Your task to perform on an android device: Open notification settings Image 0: 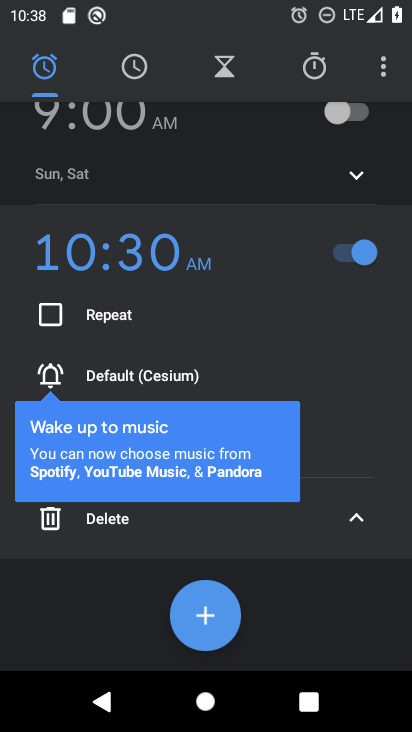
Step 0: press home button
Your task to perform on an android device: Open notification settings Image 1: 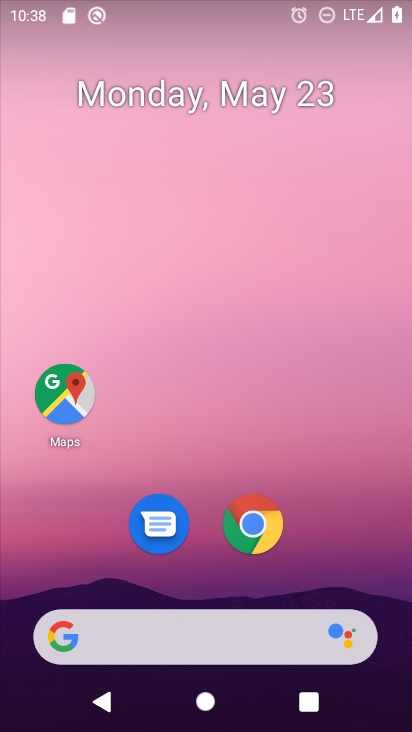
Step 1: drag from (239, 359) to (272, 40)
Your task to perform on an android device: Open notification settings Image 2: 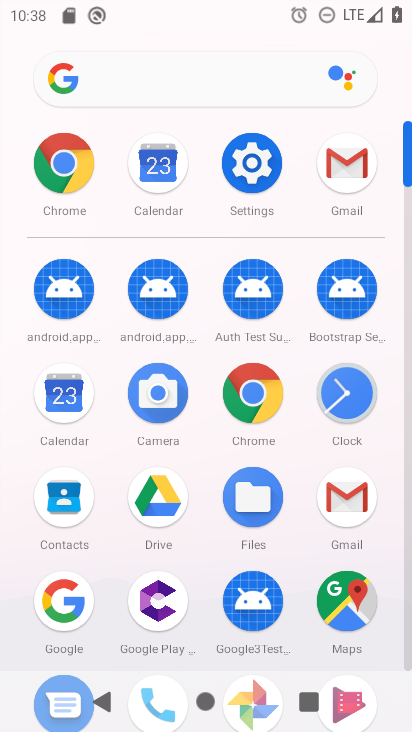
Step 2: click (247, 161)
Your task to perform on an android device: Open notification settings Image 3: 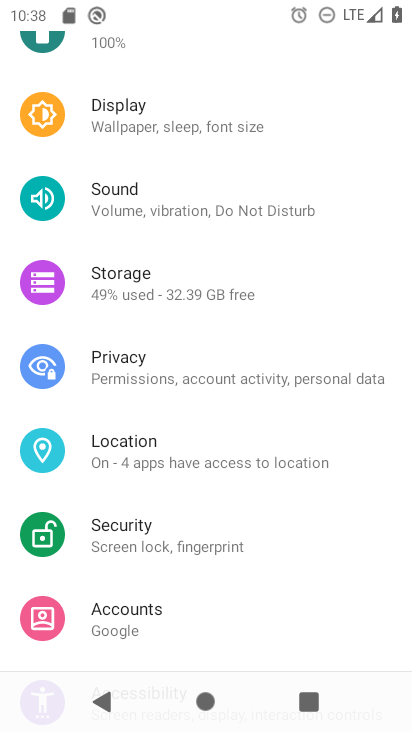
Step 3: drag from (241, 182) to (209, 555)
Your task to perform on an android device: Open notification settings Image 4: 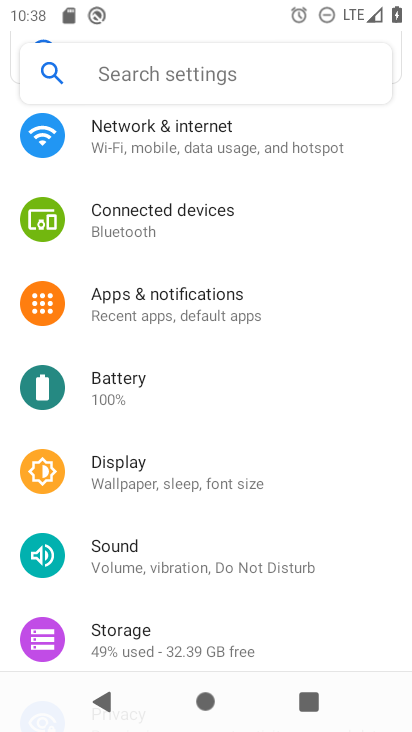
Step 4: click (197, 304)
Your task to perform on an android device: Open notification settings Image 5: 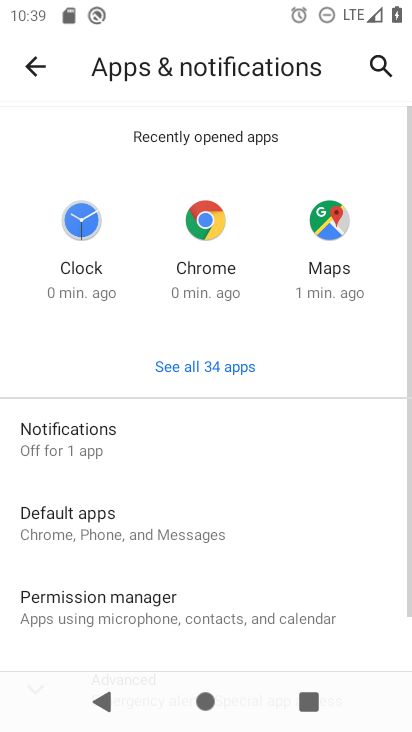
Step 5: click (95, 436)
Your task to perform on an android device: Open notification settings Image 6: 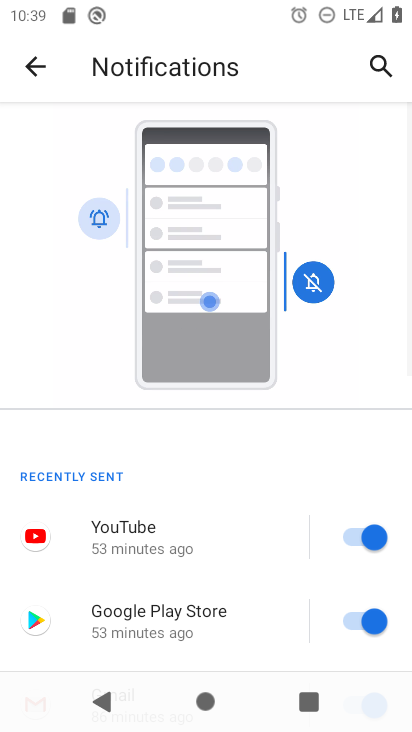
Step 6: task complete